Your task to perform on an android device: check data usage Image 0: 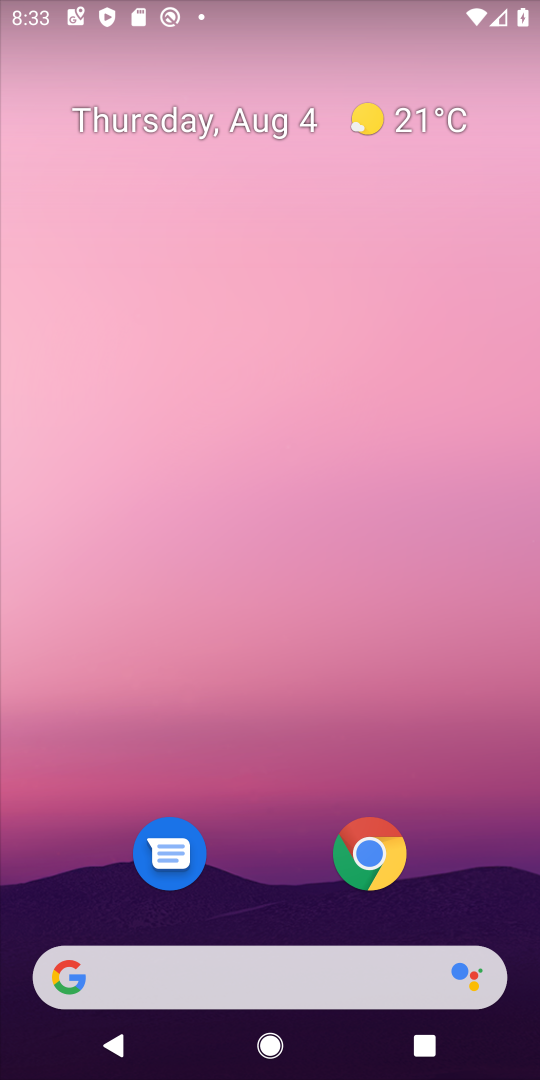
Step 0: drag from (233, 936) to (233, 318)
Your task to perform on an android device: check data usage Image 1: 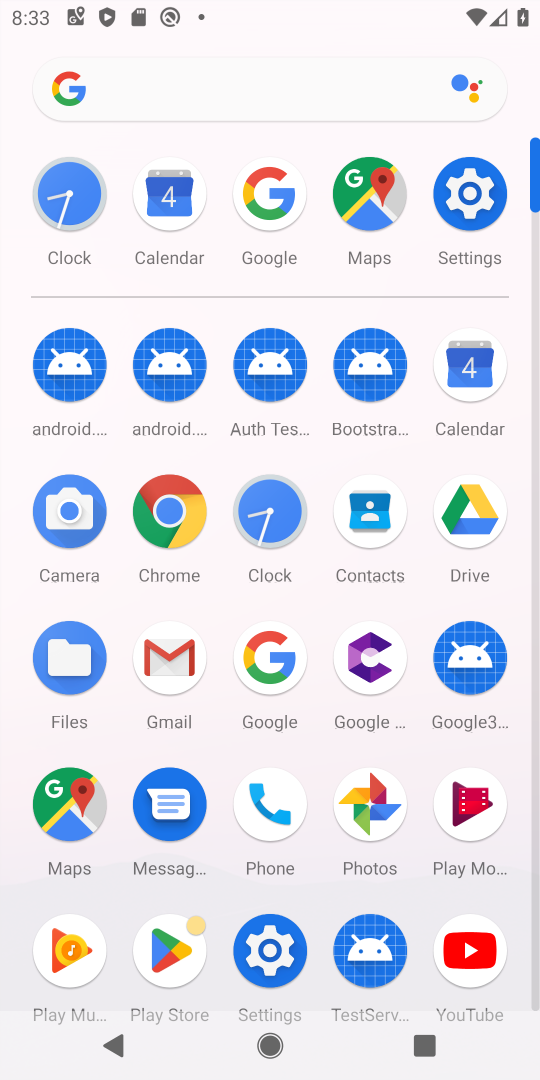
Step 1: click (460, 209)
Your task to perform on an android device: check data usage Image 2: 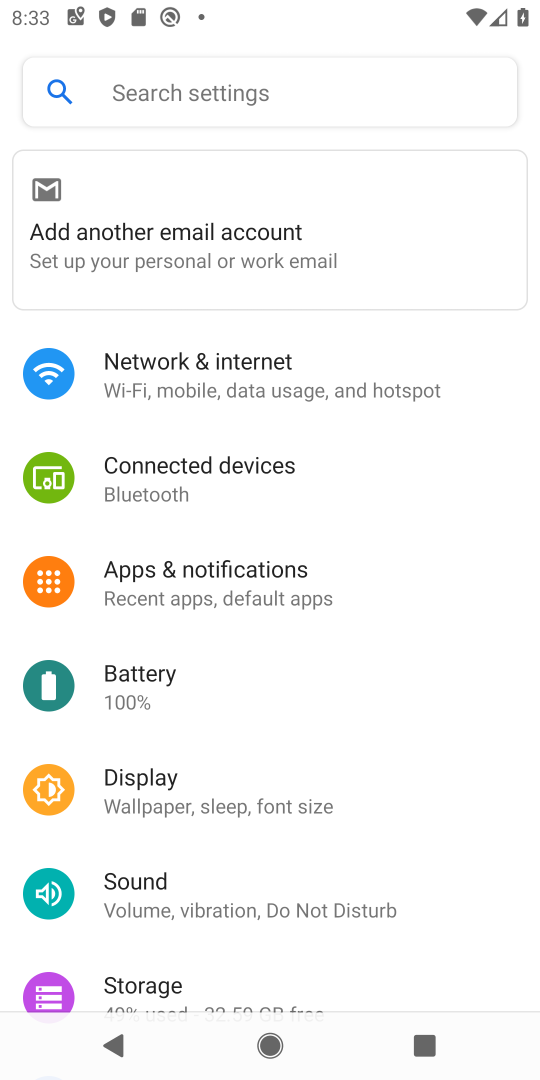
Step 2: click (247, 366)
Your task to perform on an android device: check data usage Image 3: 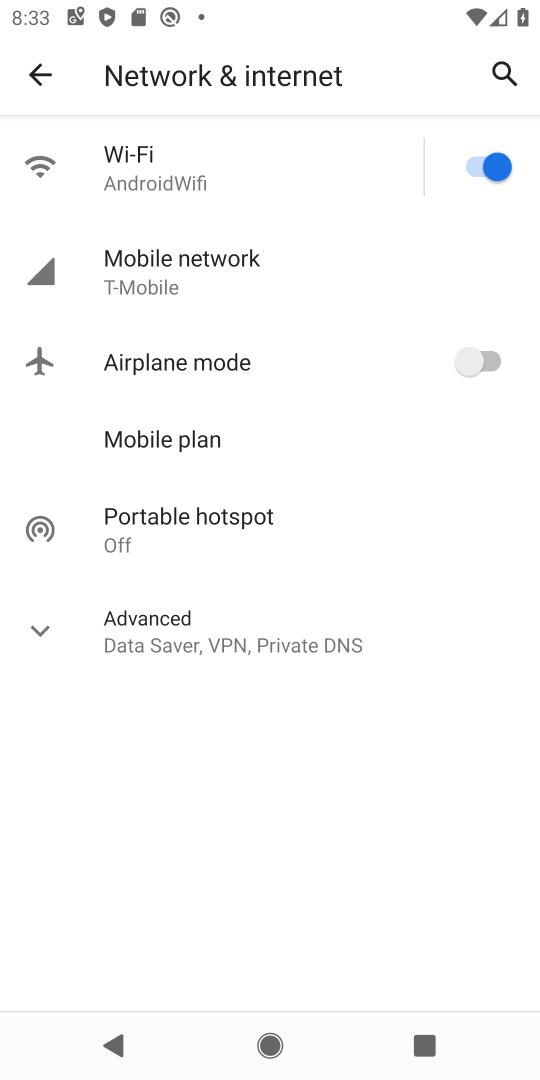
Step 3: click (195, 264)
Your task to perform on an android device: check data usage Image 4: 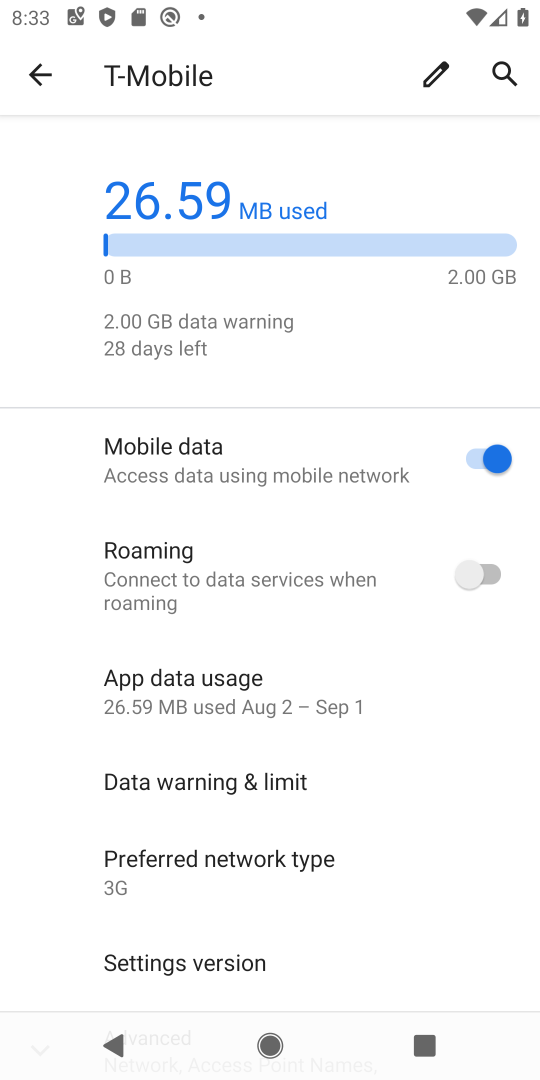
Step 4: task complete